Your task to perform on an android device: delete browsing data in the chrome app Image 0: 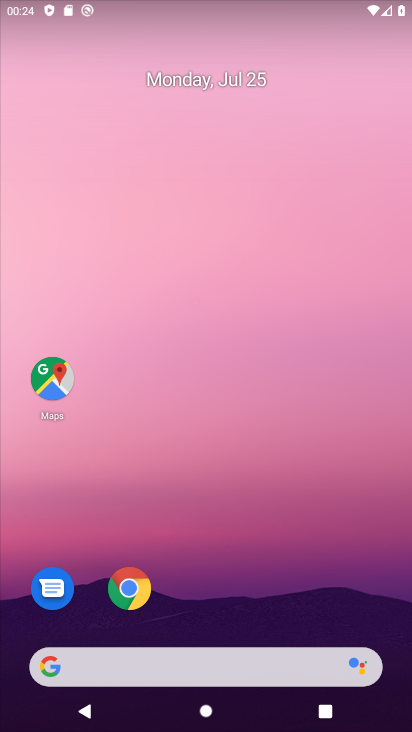
Step 0: drag from (232, 603) to (299, 60)
Your task to perform on an android device: delete browsing data in the chrome app Image 1: 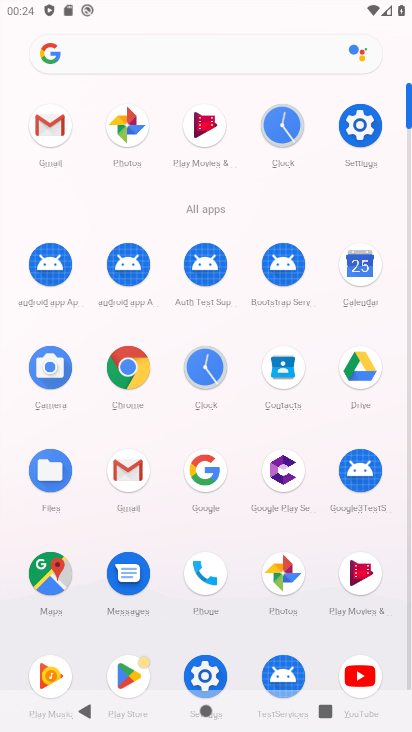
Step 1: click (134, 372)
Your task to perform on an android device: delete browsing data in the chrome app Image 2: 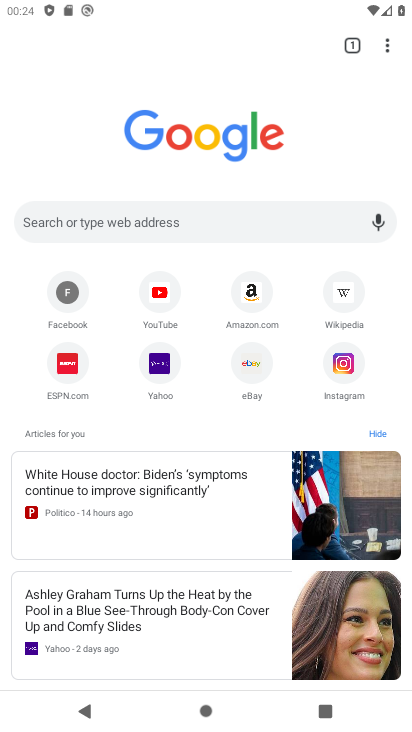
Step 2: click (386, 50)
Your task to perform on an android device: delete browsing data in the chrome app Image 3: 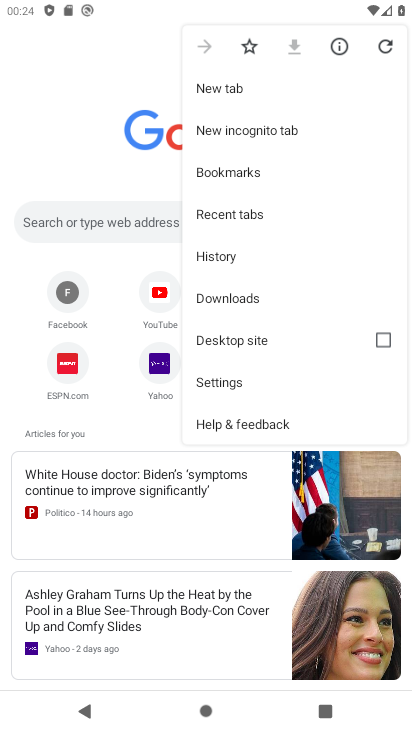
Step 3: click (221, 257)
Your task to perform on an android device: delete browsing data in the chrome app Image 4: 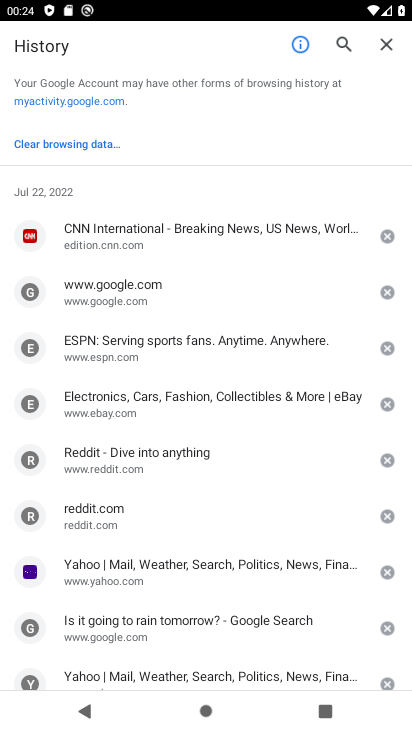
Step 4: click (70, 137)
Your task to perform on an android device: delete browsing data in the chrome app Image 5: 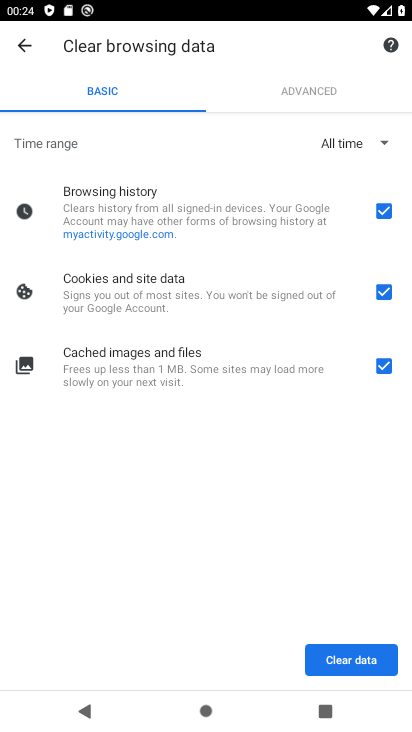
Step 5: click (352, 658)
Your task to perform on an android device: delete browsing data in the chrome app Image 6: 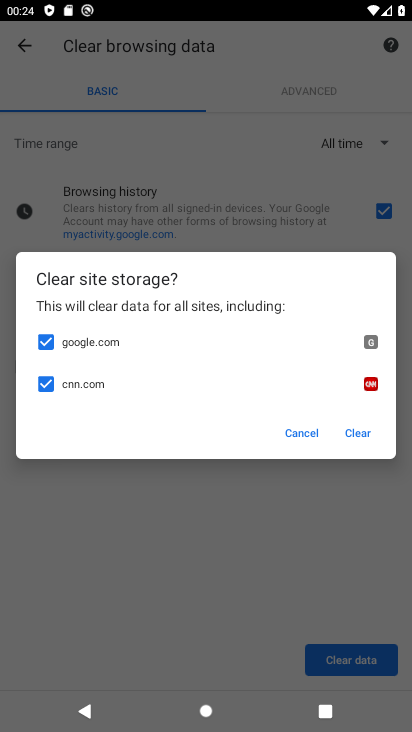
Step 6: click (358, 427)
Your task to perform on an android device: delete browsing data in the chrome app Image 7: 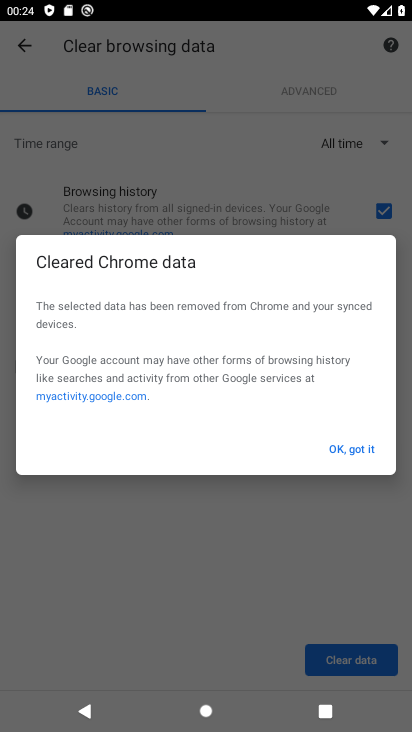
Step 7: click (357, 453)
Your task to perform on an android device: delete browsing data in the chrome app Image 8: 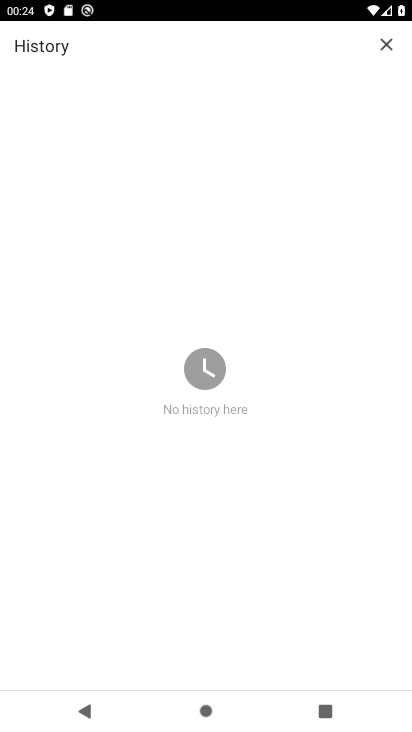
Step 8: task complete